Your task to perform on an android device: turn pop-ups off in chrome Image 0: 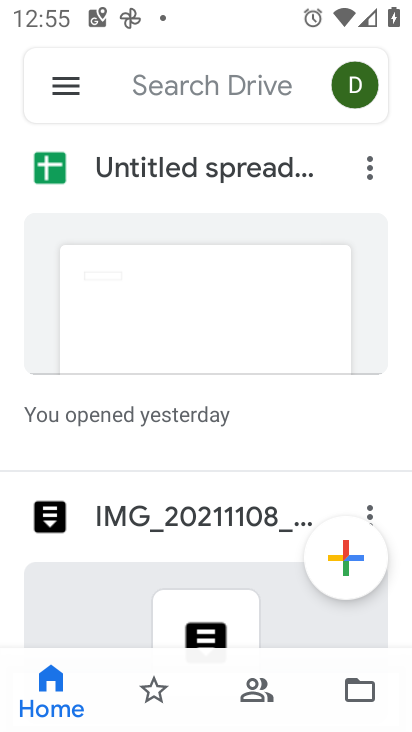
Step 0: press home button
Your task to perform on an android device: turn pop-ups off in chrome Image 1: 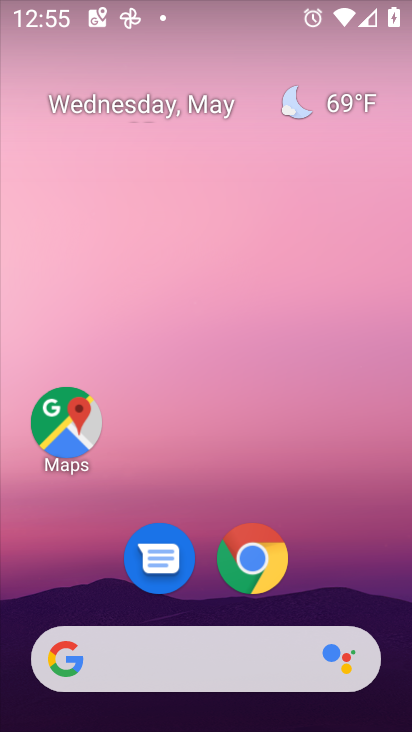
Step 1: drag from (386, 632) to (317, 73)
Your task to perform on an android device: turn pop-ups off in chrome Image 2: 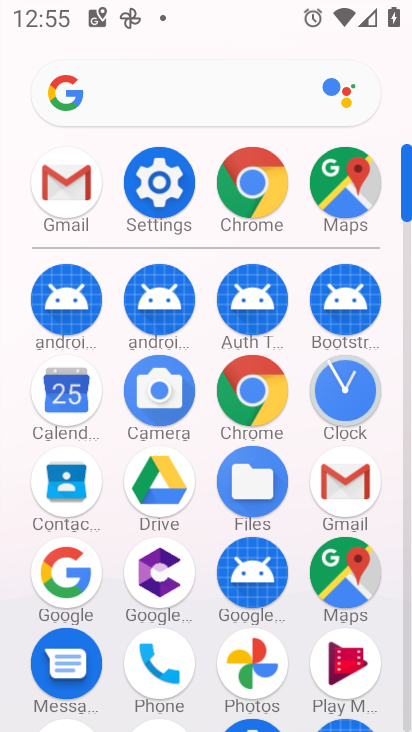
Step 2: click (261, 195)
Your task to perform on an android device: turn pop-ups off in chrome Image 3: 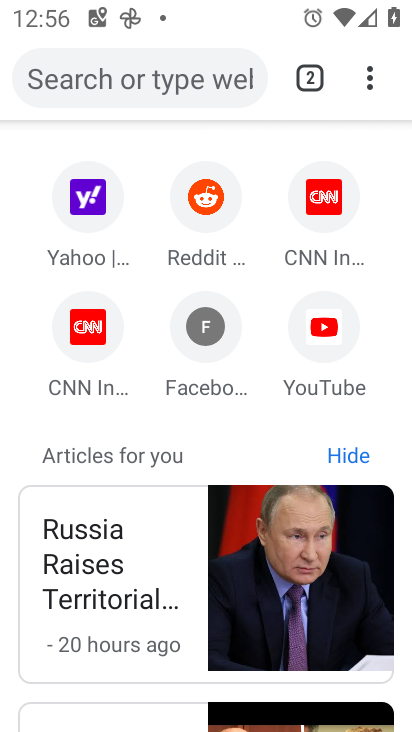
Step 3: click (376, 69)
Your task to perform on an android device: turn pop-ups off in chrome Image 4: 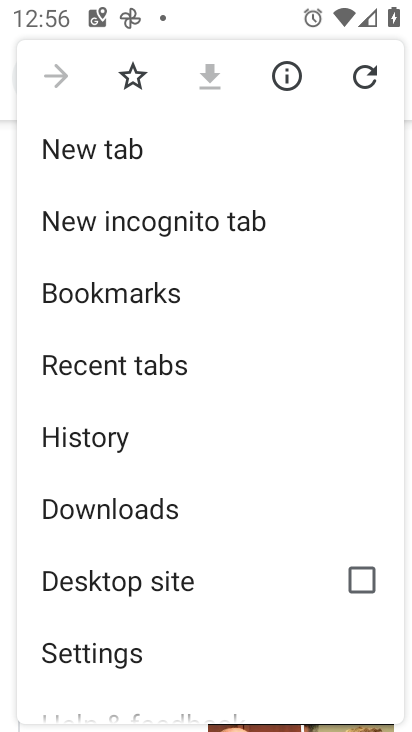
Step 4: click (131, 668)
Your task to perform on an android device: turn pop-ups off in chrome Image 5: 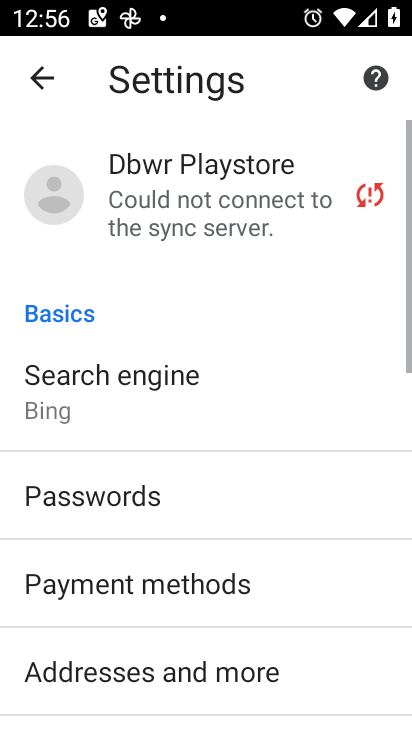
Step 5: drag from (131, 668) to (199, 204)
Your task to perform on an android device: turn pop-ups off in chrome Image 6: 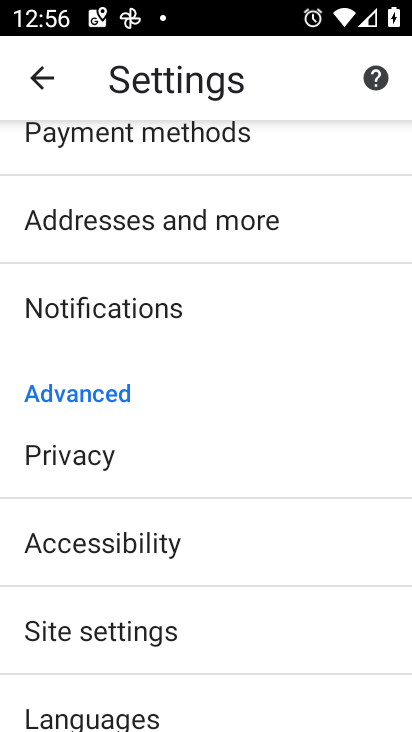
Step 6: click (168, 626)
Your task to perform on an android device: turn pop-ups off in chrome Image 7: 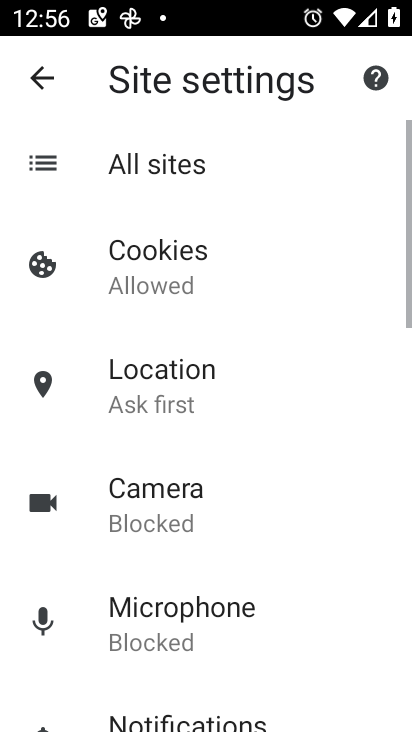
Step 7: drag from (168, 626) to (216, 194)
Your task to perform on an android device: turn pop-ups off in chrome Image 8: 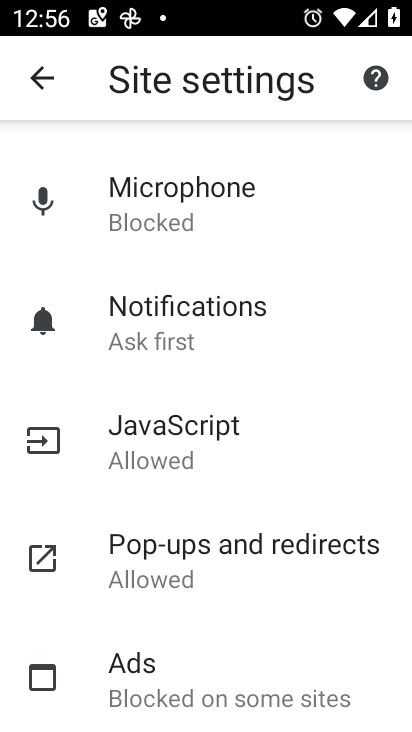
Step 8: click (181, 547)
Your task to perform on an android device: turn pop-ups off in chrome Image 9: 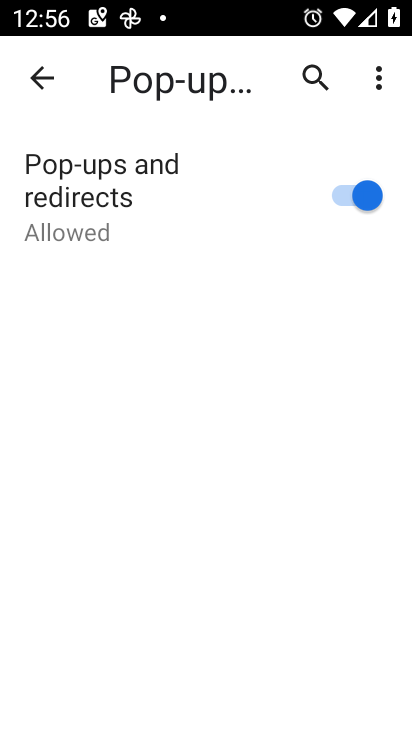
Step 9: click (322, 209)
Your task to perform on an android device: turn pop-ups off in chrome Image 10: 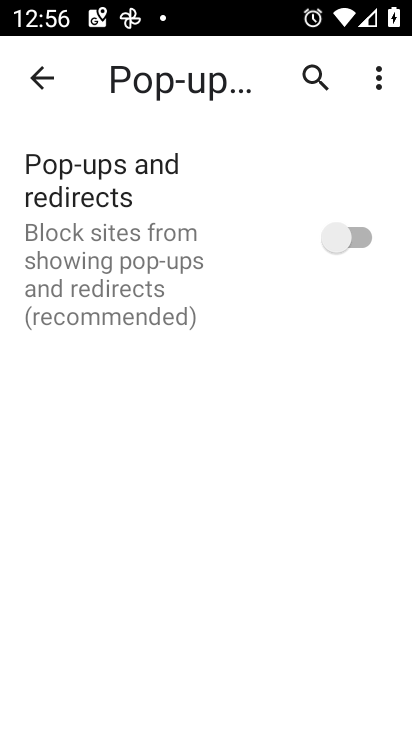
Step 10: task complete